Your task to perform on an android device: Open battery settings Image 0: 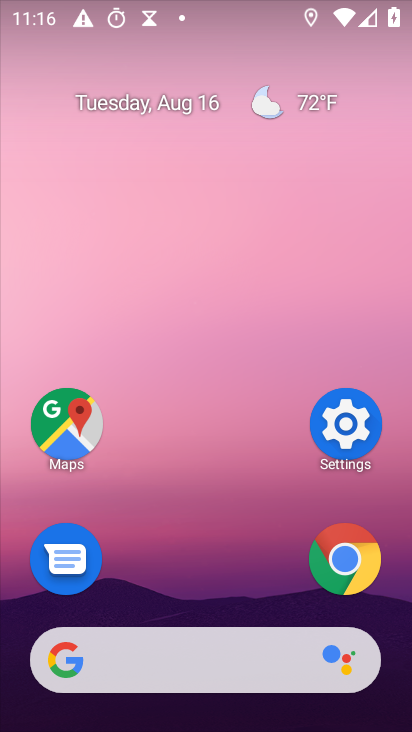
Step 0: click (353, 428)
Your task to perform on an android device: Open battery settings Image 1: 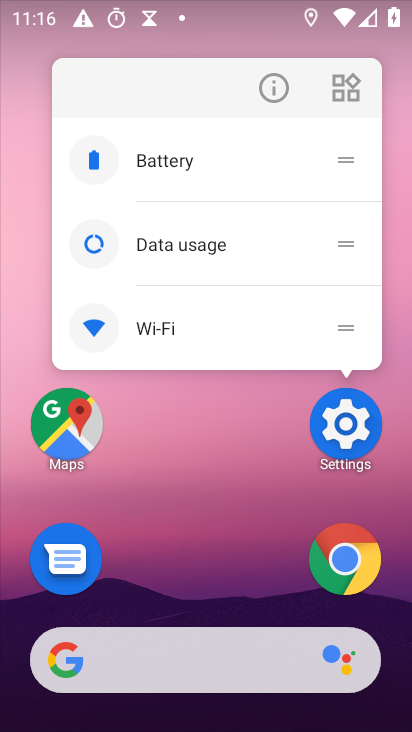
Step 1: click (341, 418)
Your task to perform on an android device: Open battery settings Image 2: 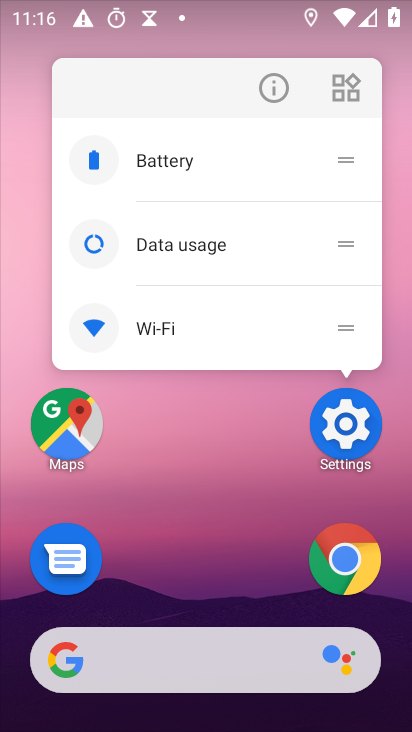
Step 2: click (341, 418)
Your task to perform on an android device: Open battery settings Image 3: 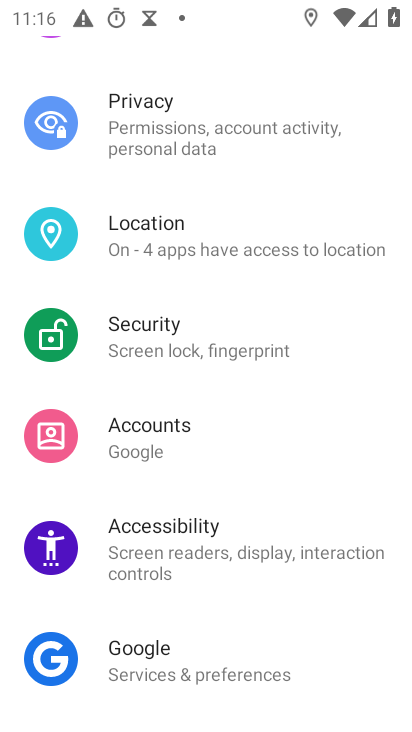
Step 3: drag from (290, 208) to (334, 578)
Your task to perform on an android device: Open battery settings Image 4: 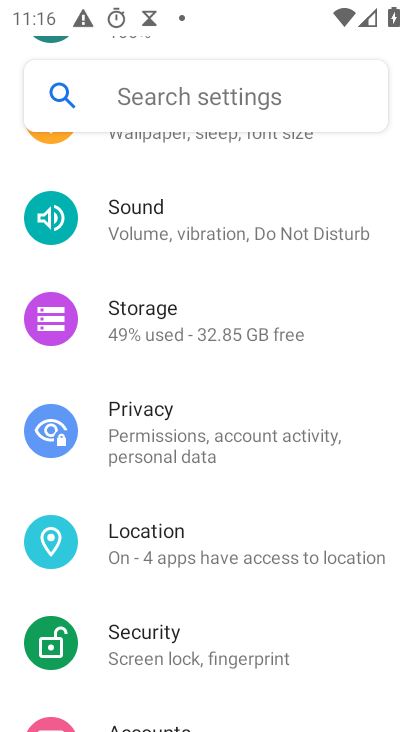
Step 4: drag from (281, 189) to (292, 594)
Your task to perform on an android device: Open battery settings Image 5: 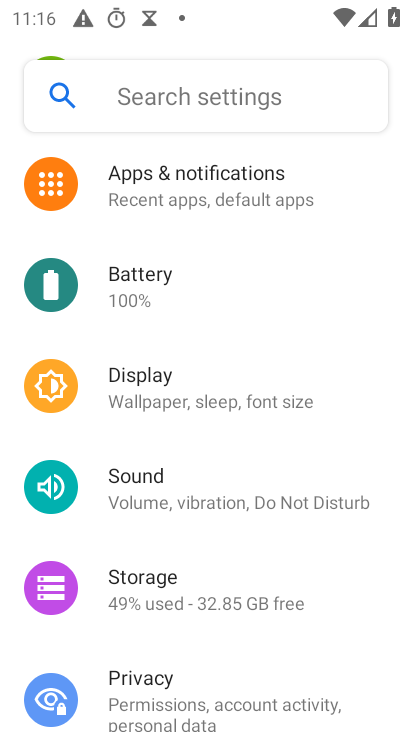
Step 5: click (130, 286)
Your task to perform on an android device: Open battery settings Image 6: 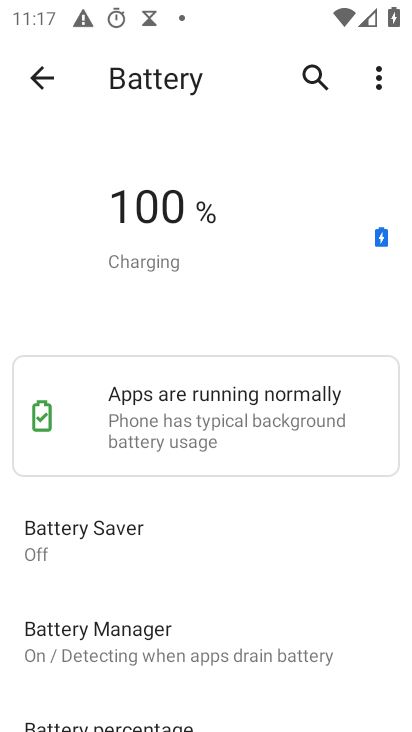
Step 6: task complete